Your task to perform on an android device: change keyboard looks Image 0: 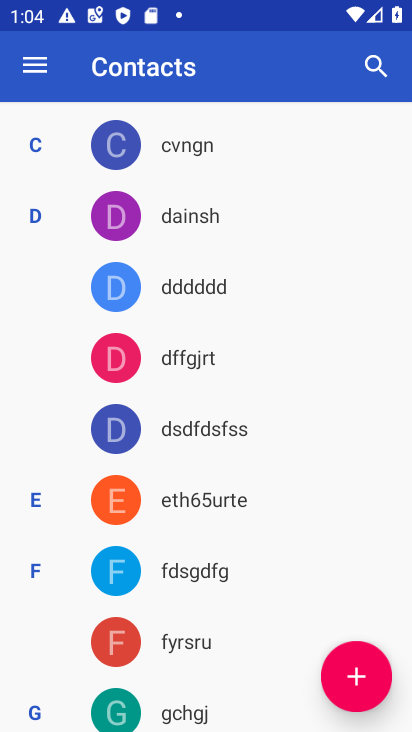
Step 0: press home button
Your task to perform on an android device: change keyboard looks Image 1: 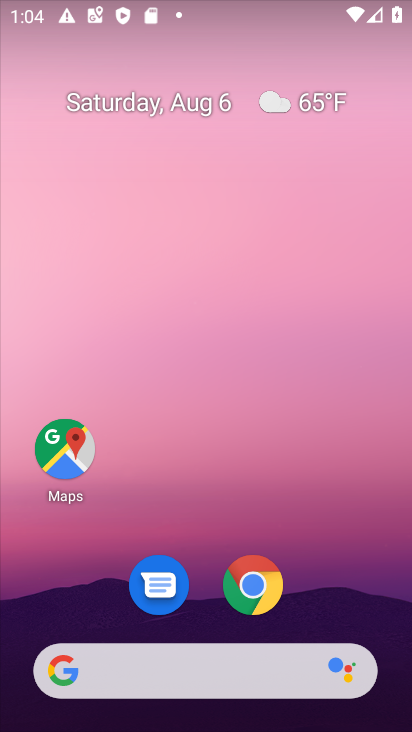
Step 1: drag from (205, 522) to (207, 0)
Your task to perform on an android device: change keyboard looks Image 2: 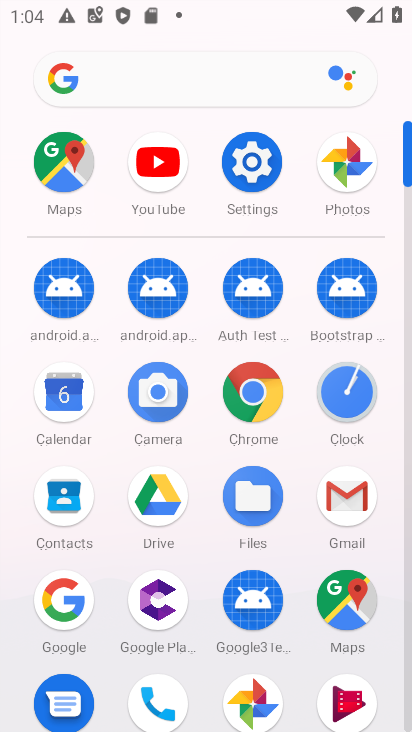
Step 2: click (252, 161)
Your task to perform on an android device: change keyboard looks Image 3: 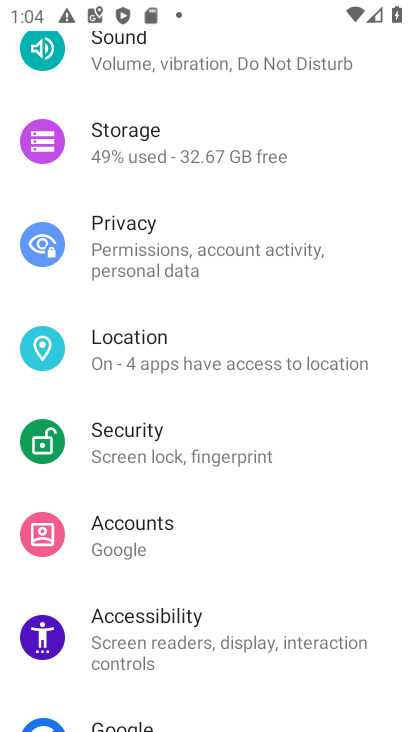
Step 3: drag from (239, 555) to (235, 174)
Your task to perform on an android device: change keyboard looks Image 4: 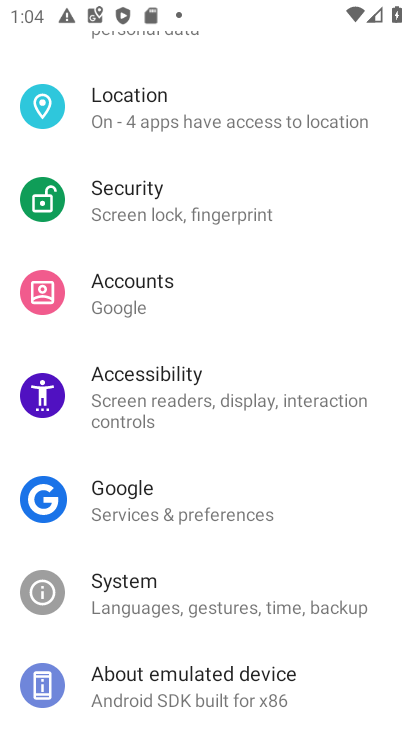
Step 4: click (181, 594)
Your task to perform on an android device: change keyboard looks Image 5: 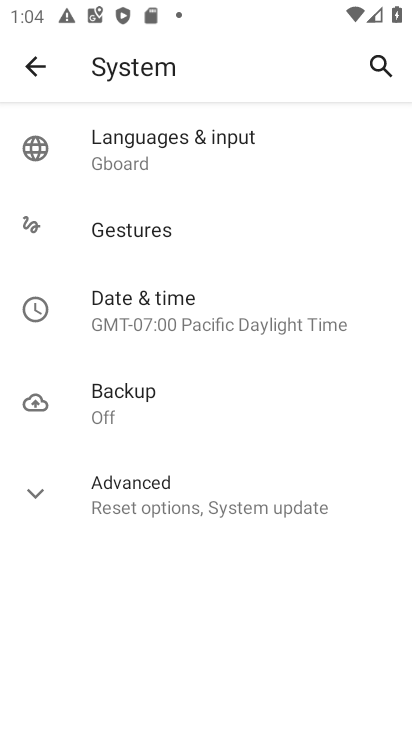
Step 5: click (190, 143)
Your task to perform on an android device: change keyboard looks Image 6: 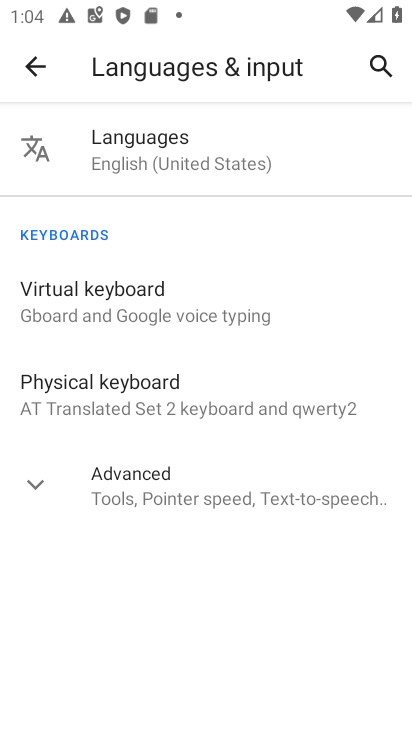
Step 6: click (142, 288)
Your task to perform on an android device: change keyboard looks Image 7: 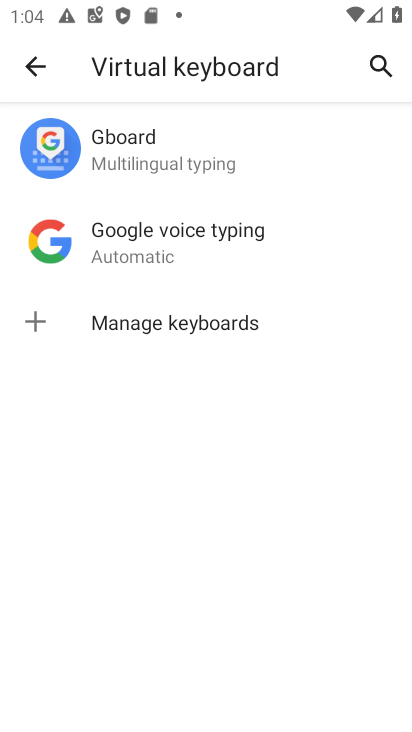
Step 7: click (148, 156)
Your task to perform on an android device: change keyboard looks Image 8: 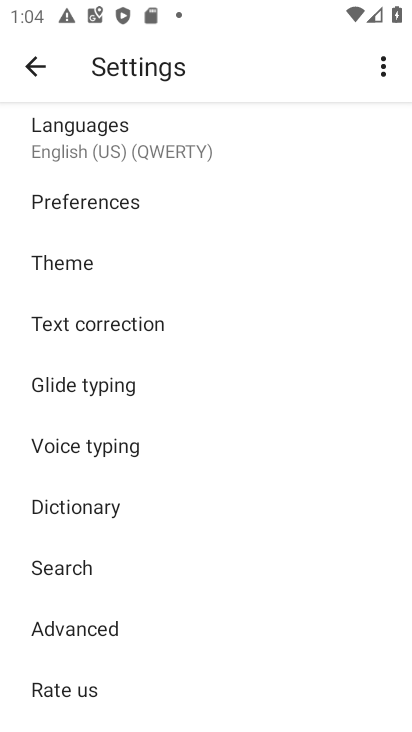
Step 8: click (97, 259)
Your task to perform on an android device: change keyboard looks Image 9: 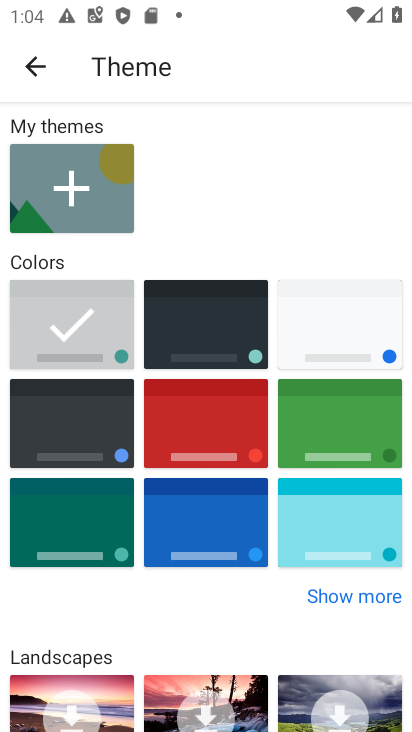
Step 9: click (199, 335)
Your task to perform on an android device: change keyboard looks Image 10: 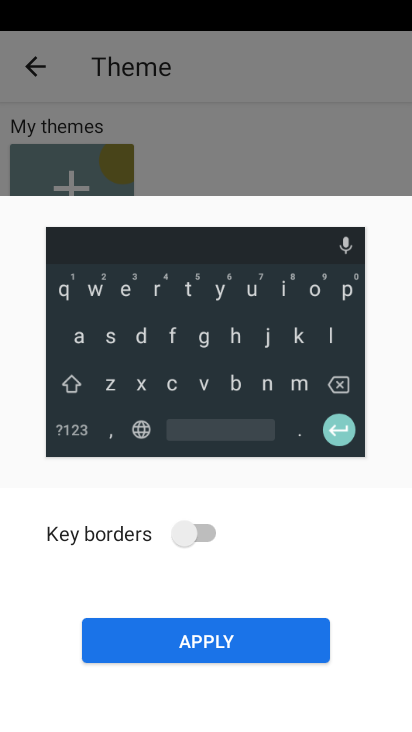
Step 10: click (200, 531)
Your task to perform on an android device: change keyboard looks Image 11: 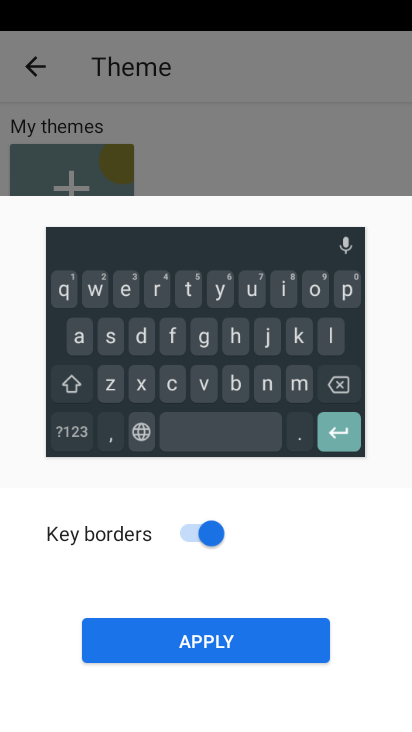
Step 11: click (226, 641)
Your task to perform on an android device: change keyboard looks Image 12: 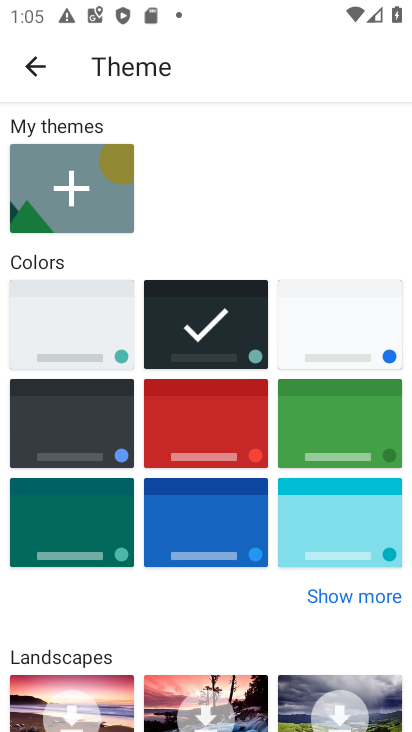
Step 12: task complete